Your task to perform on an android device: check out phone information Image 0: 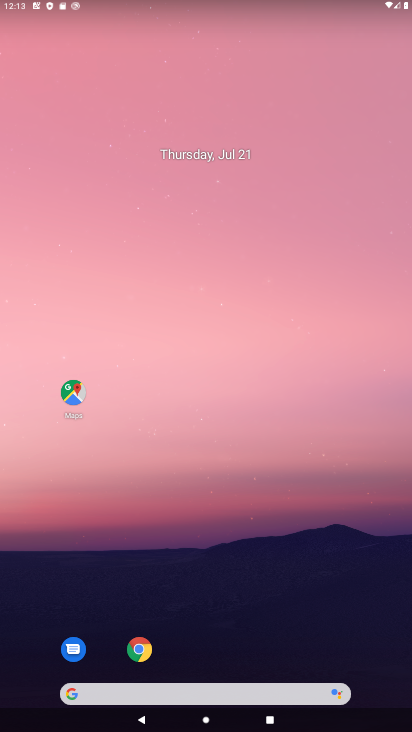
Step 0: drag from (386, 595) to (326, 125)
Your task to perform on an android device: check out phone information Image 1: 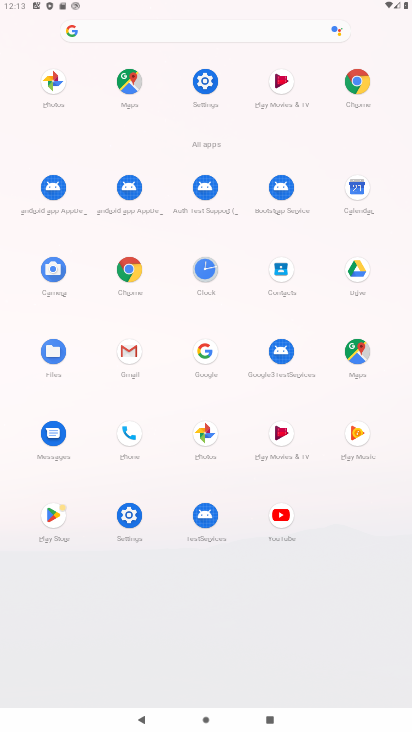
Step 1: click (128, 512)
Your task to perform on an android device: check out phone information Image 2: 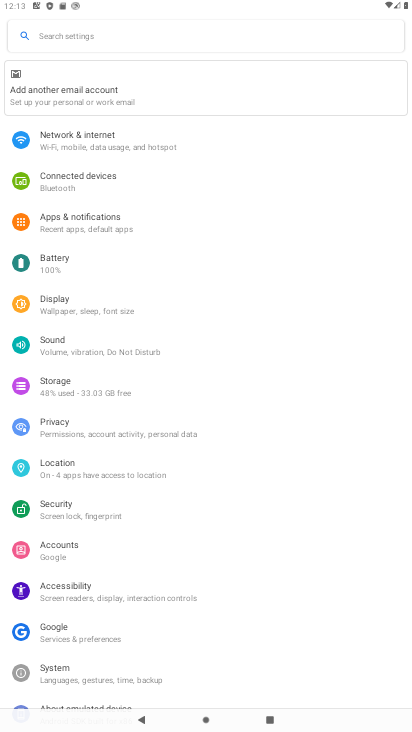
Step 2: drag from (205, 656) to (203, 318)
Your task to perform on an android device: check out phone information Image 3: 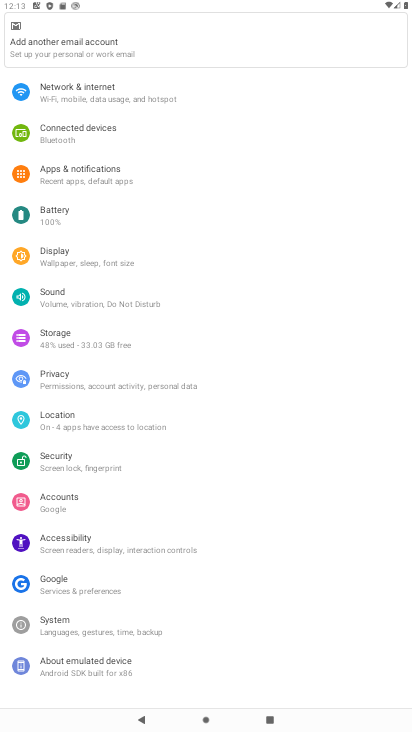
Step 3: click (83, 664)
Your task to perform on an android device: check out phone information Image 4: 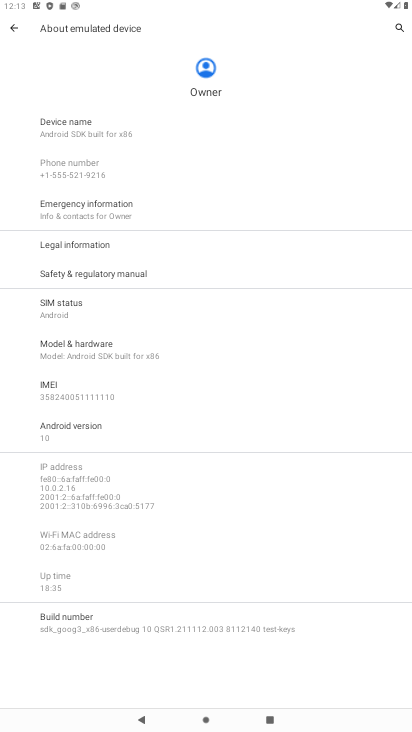
Step 4: task complete